Your task to perform on an android device: Go to calendar. Show me events next week Image 0: 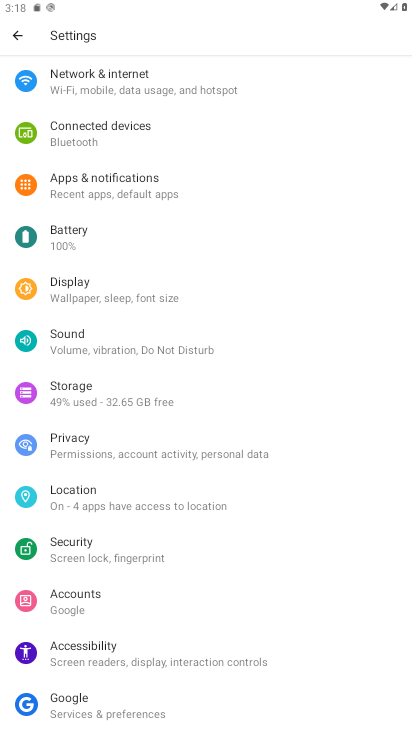
Step 0: press home button
Your task to perform on an android device: Go to calendar. Show me events next week Image 1: 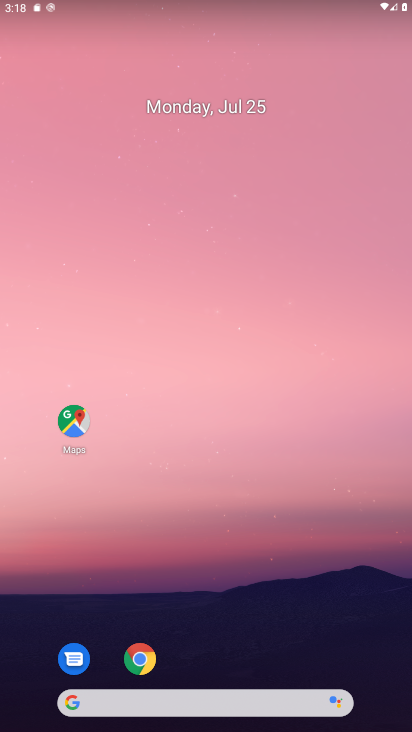
Step 1: drag from (202, 643) to (155, 223)
Your task to perform on an android device: Go to calendar. Show me events next week Image 2: 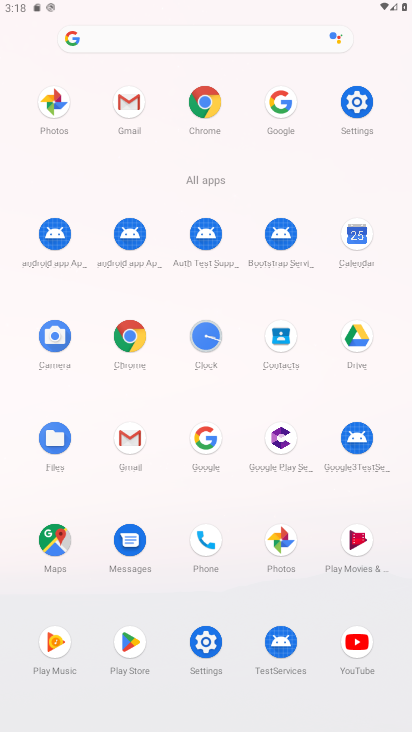
Step 2: click (363, 240)
Your task to perform on an android device: Go to calendar. Show me events next week Image 3: 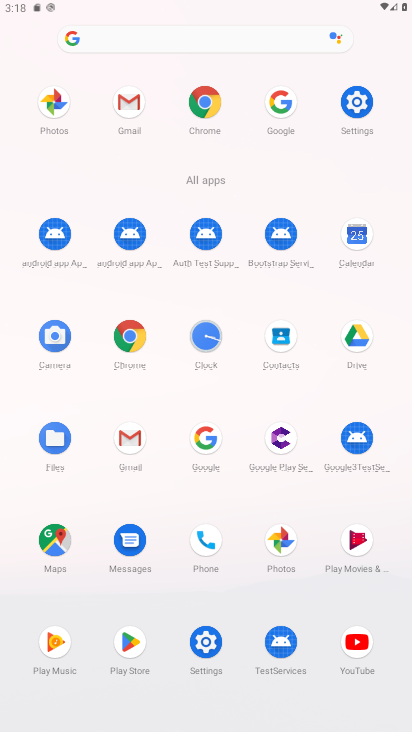
Step 3: click (363, 240)
Your task to perform on an android device: Go to calendar. Show me events next week Image 4: 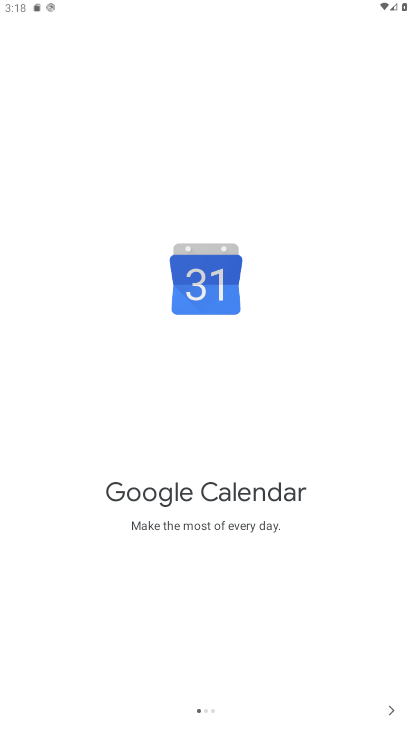
Step 4: click (190, 398)
Your task to perform on an android device: Go to calendar. Show me events next week Image 5: 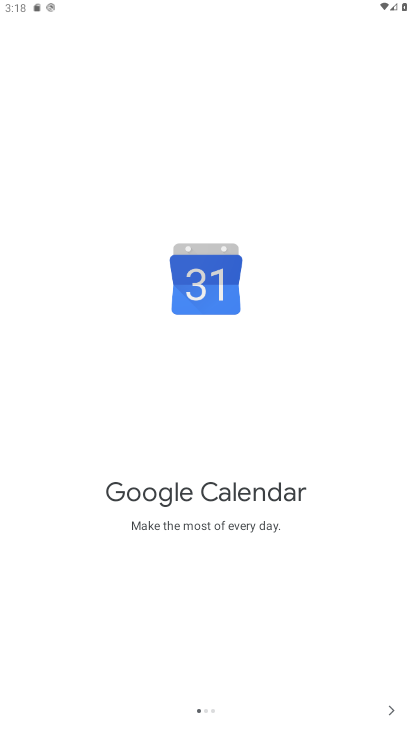
Step 5: click (190, 398)
Your task to perform on an android device: Go to calendar. Show me events next week Image 6: 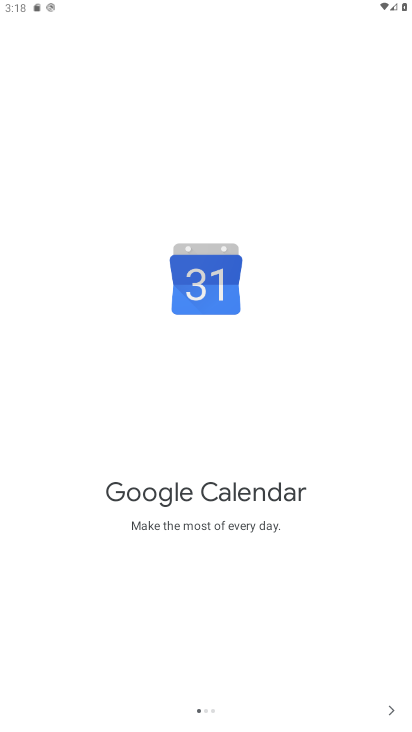
Step 6: click (190, 398)
Your task to perform on an android device: Go to calendar. Show me events next week Image 7: 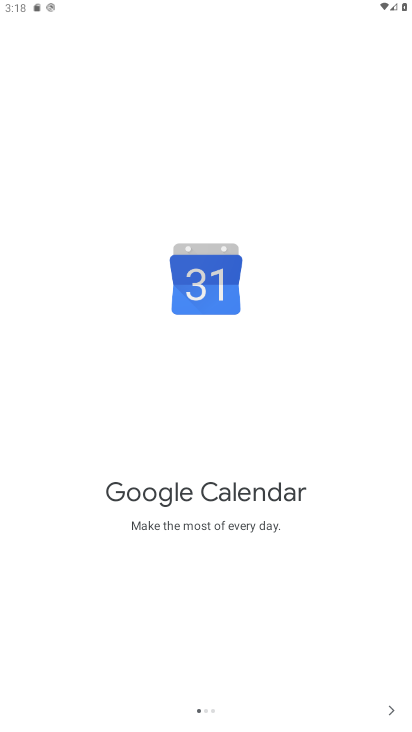
Step 7: press back button
Your task to perform on an android device: Go to calendar. Show me events next week Image 8: 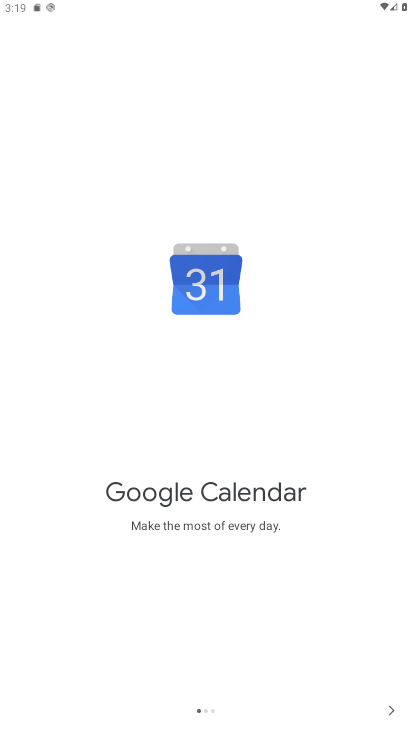
Step 8: press back button
Your task to perform on an android device: Go to calendar. Show me events next week Image 9: 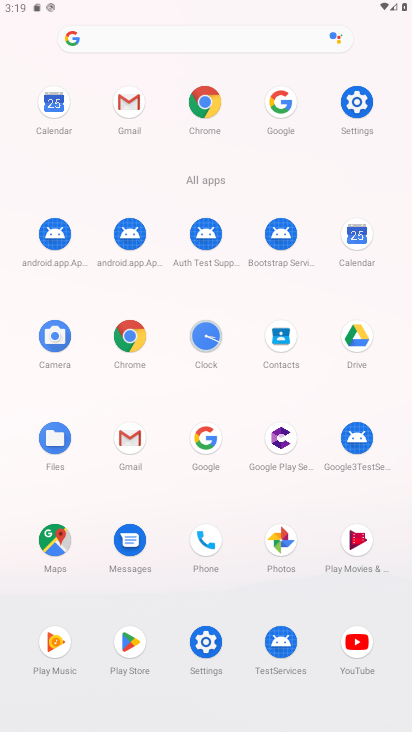
Step 9: click (360, 231)
Your task to perform on an android device: Go to calendar. Show me events next week Image 10: 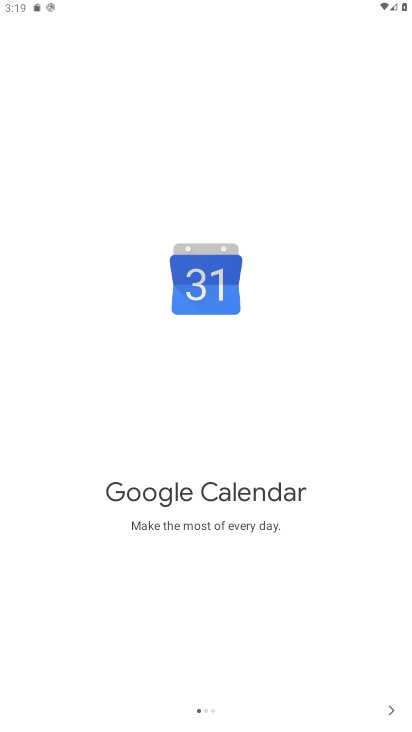
Step 10: click (380, 710)
Your task to perform on an android device: Go to calendar. Show me events next week Image 11: 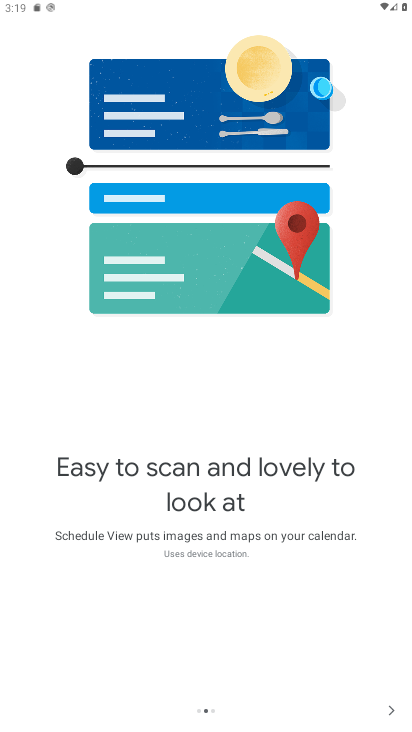
Step 11: click (380, 710)
Your task to perform on an android device: Go to calendar. Show me events next week Image 12: 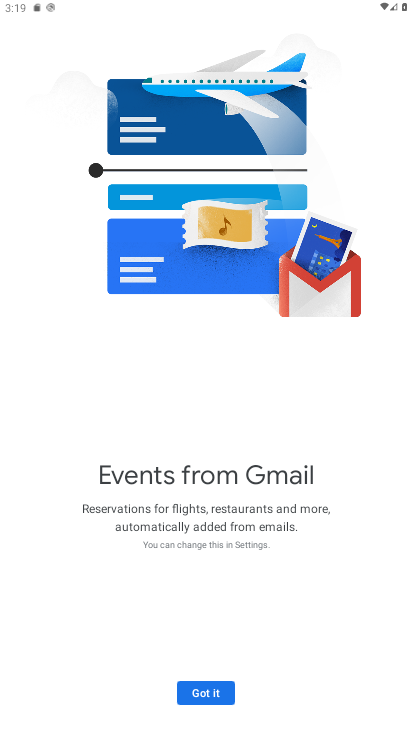
Step 12: click (197, 690)
Your task to perform on an android device: Go to calendar. Show me events next week Image 13: 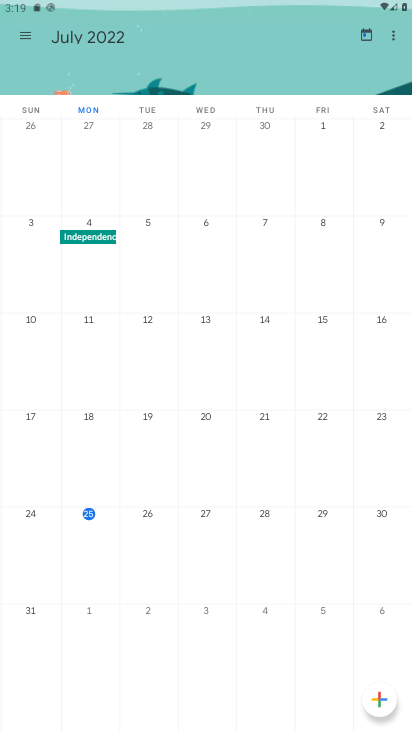
Step 13: click (90, 315)
Your task to perform on an android device: Go to calendar. Show me events next week Image 14: 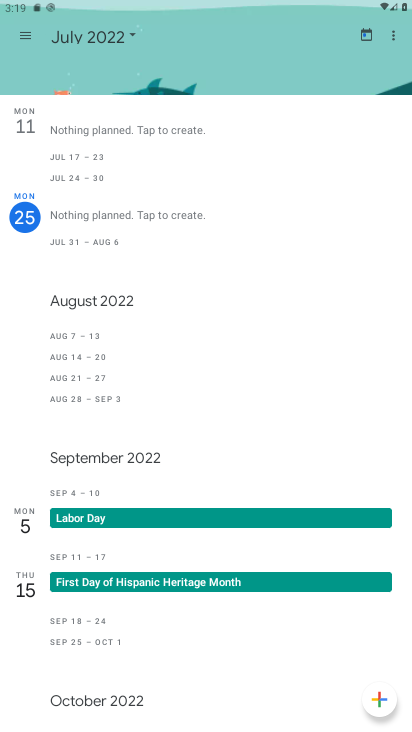
Step 14: task complete